Your task to perform on an android device: check storage Image 0: 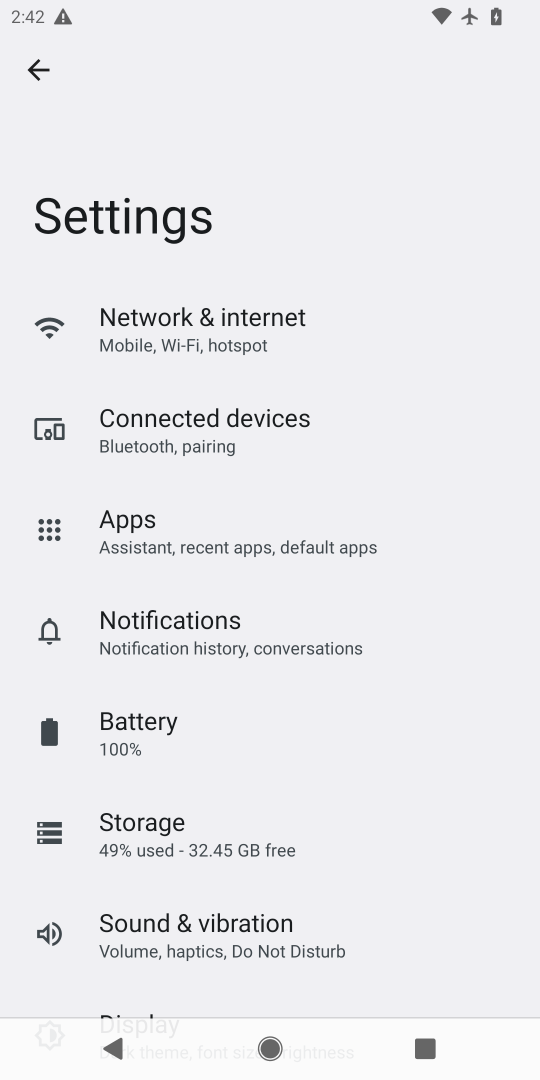
Step 0: click (123, 836)
Your task to perform on an android device: check storage Image 1: 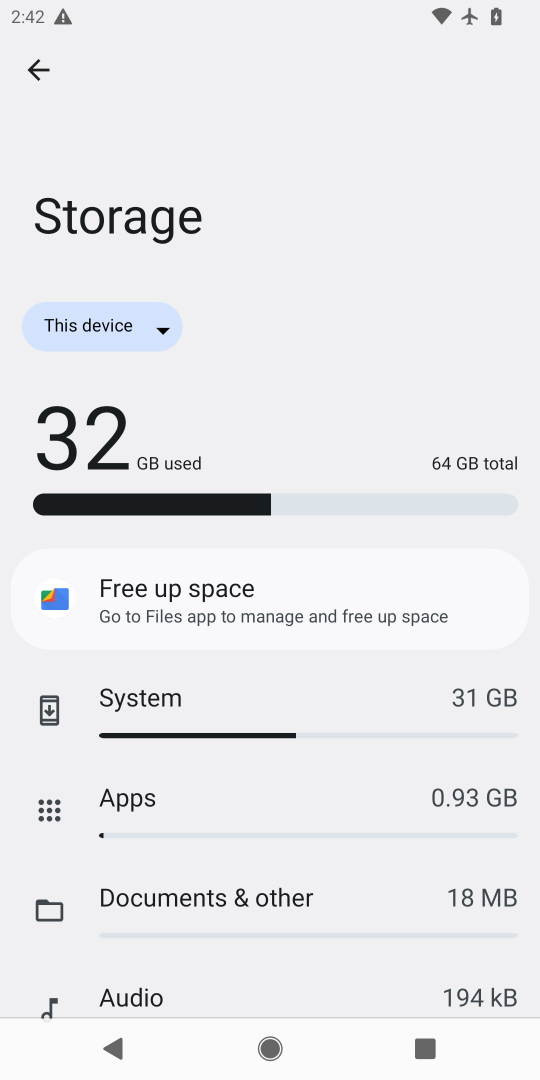
Step 1: task complete